Your task to perform on an android device: Toggle the flashlight Image 0: 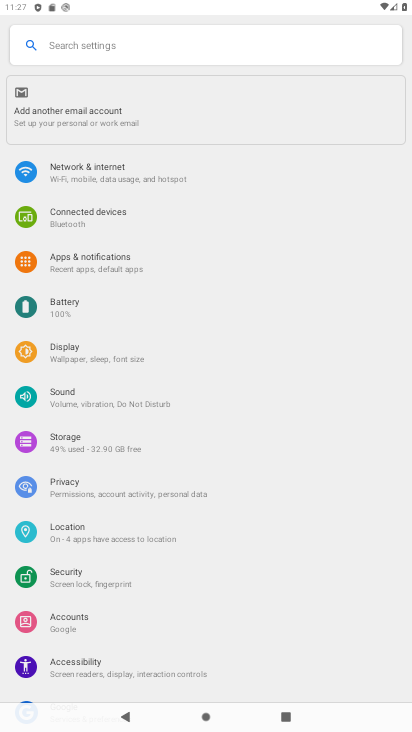
Step 0: click (240, 51)
Your task to perform on an android device: Toggle the flashlight Image 1: 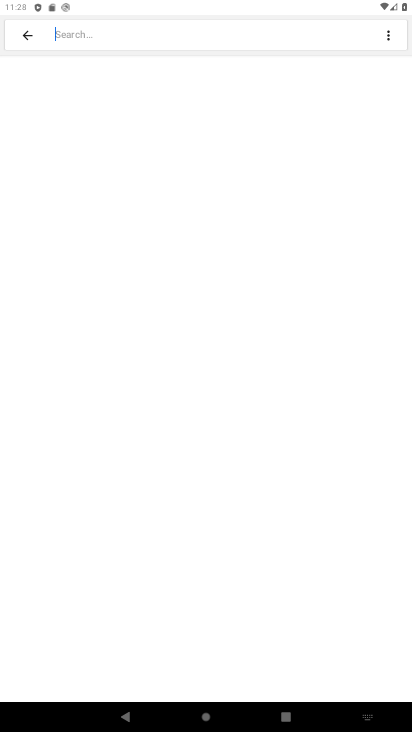
Step 1: type "flashlight"
Your task to perform on an android device: Toggle the flashlight Image 2: 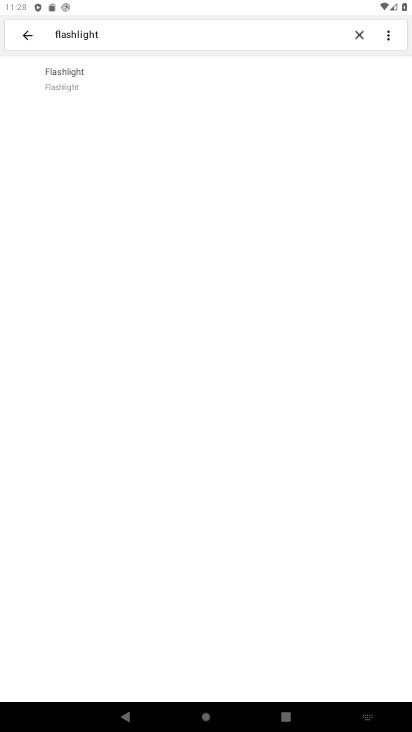
Step 2: click (86, 80)
Your task to perform on an android device: Toggle the flashlight Image 3: 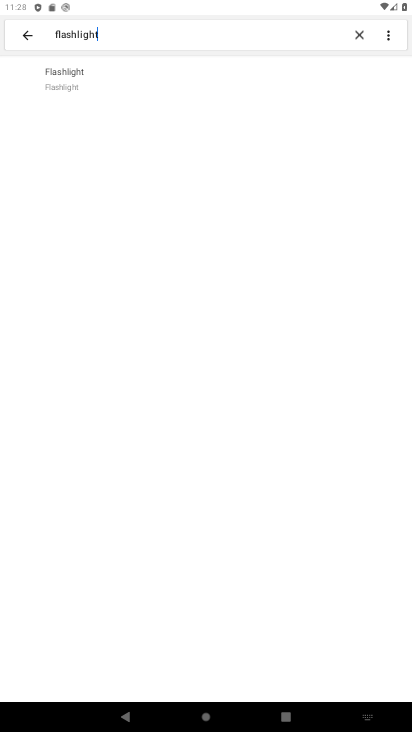
Step 3: task complete